Your task to perform on an android device: uninstall "LinkedIn" Image 0: 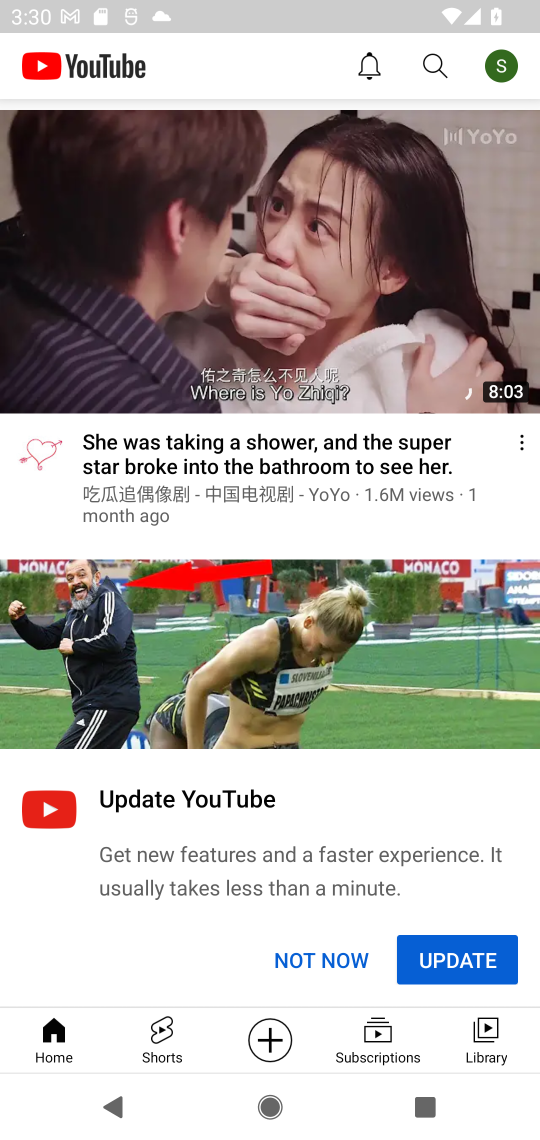
Step 0: press home button
Your task to perform on an android device: uninstall "LinkedIn" Image 1: 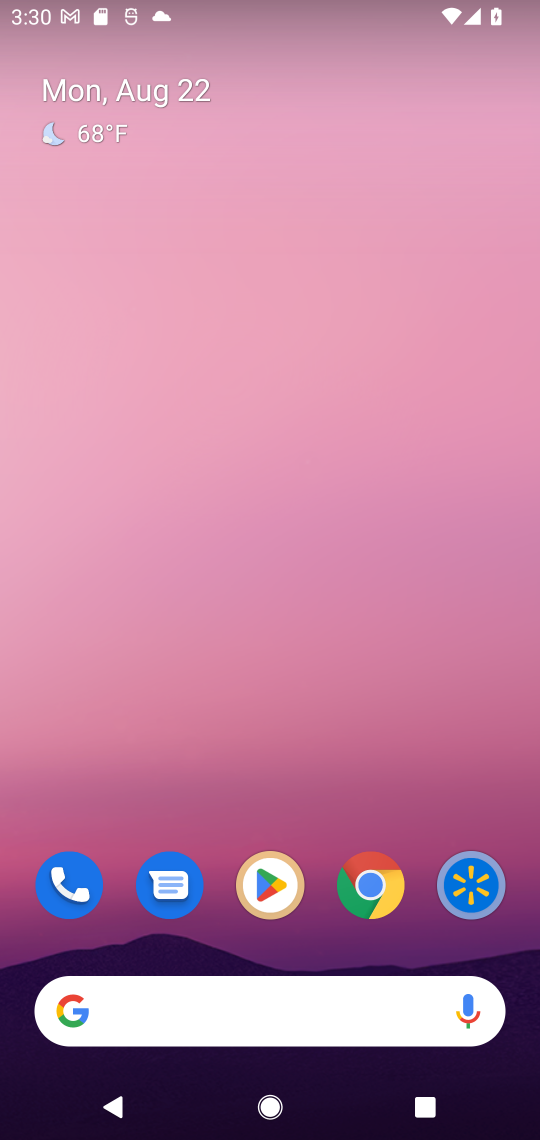
Step 1: press home button
Your task to perform on an android device: uninstall "LinkedIn" Image 2: 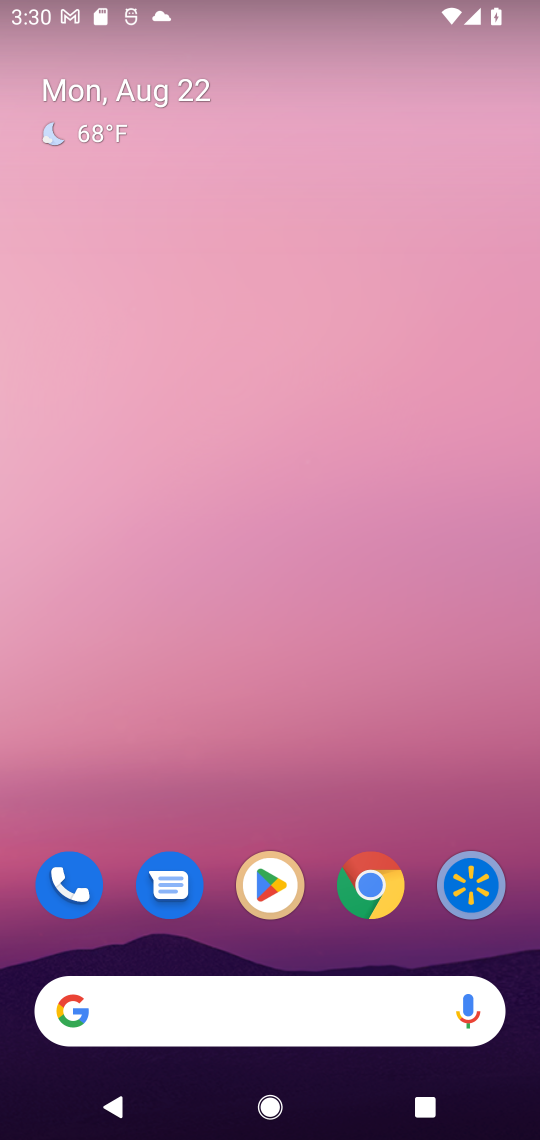
Step 2: click (276, 874)
Your task to perform on an android device: uninstall "LinkedIn" Image 3: 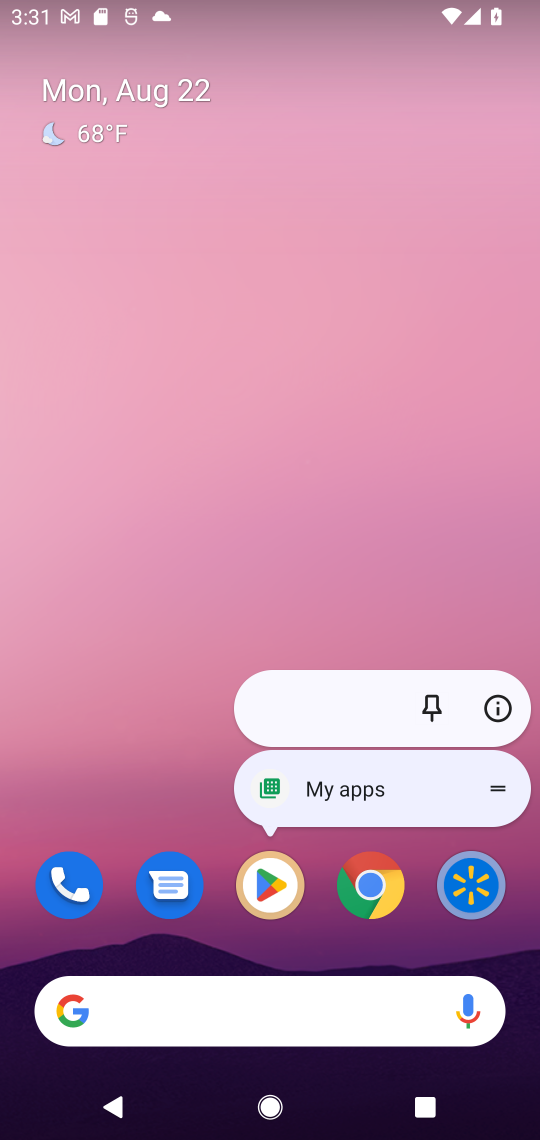
Step 3: click (280, 892)
Your task to perform on an android device: uninstall "LinkedIn" Image 4: 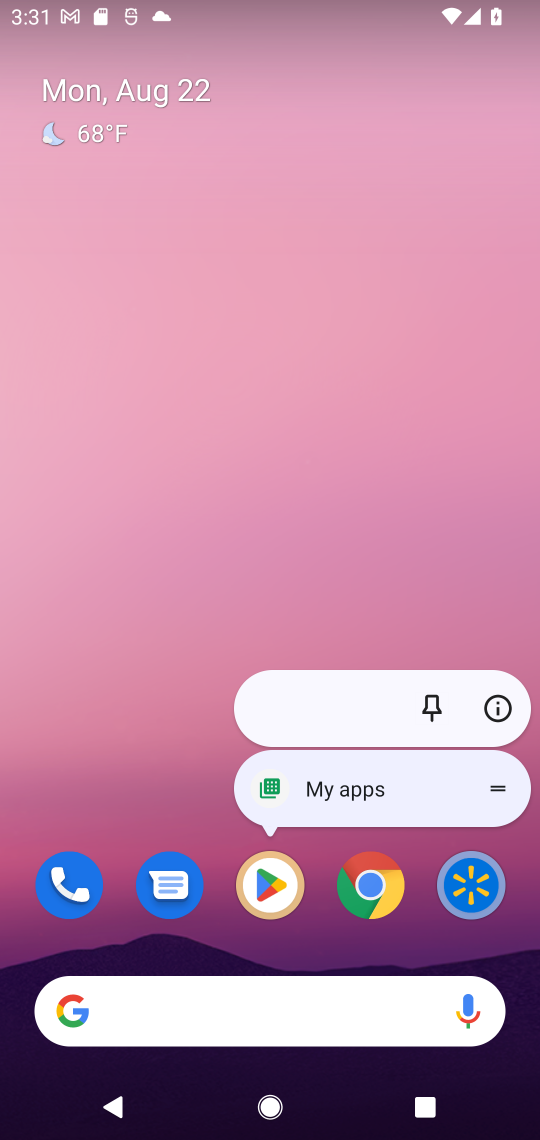
Step 4: click (261, 887)
Your task to perform on an android device: uninstall "LinkedIn" Image 5: 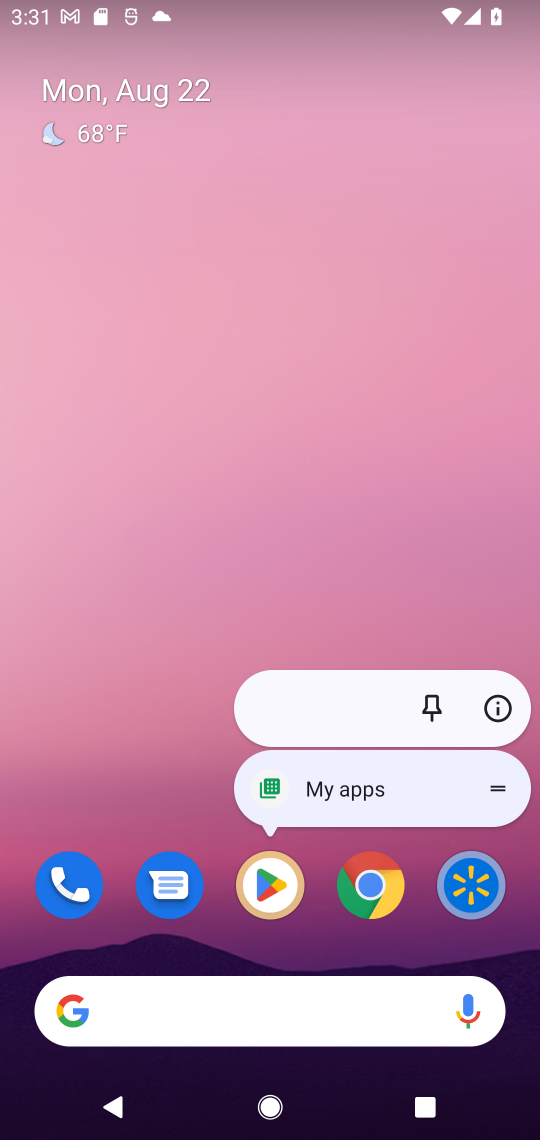
Step 5: click (261, 887)
Your task to perform on an android device: uninstall "LinkedIn" Image 6: 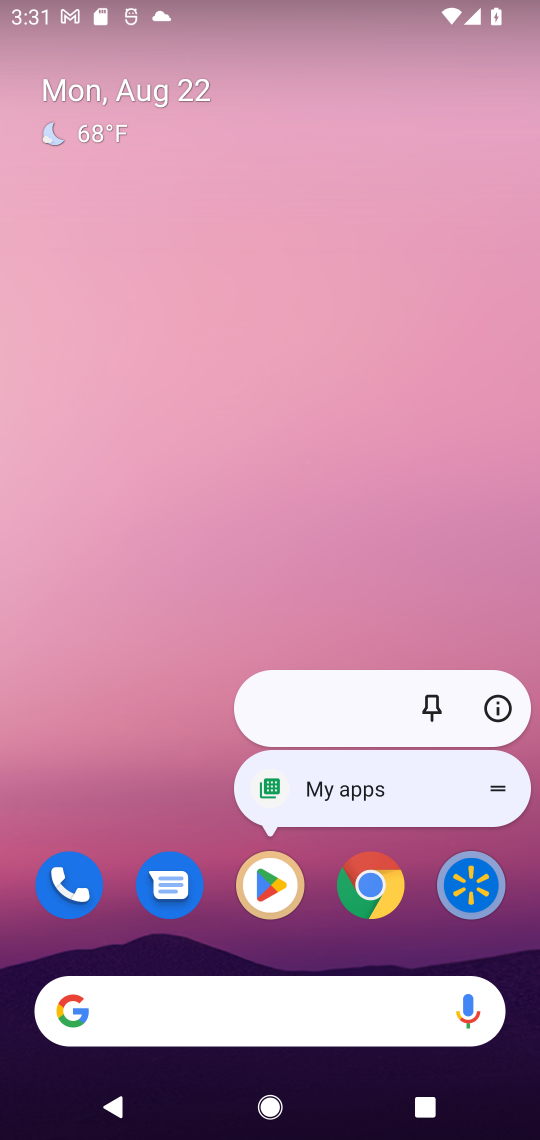
Step 6: click (202, 735)
Your task to perform on an android device: uninstall "LinkedIn" Image 7: 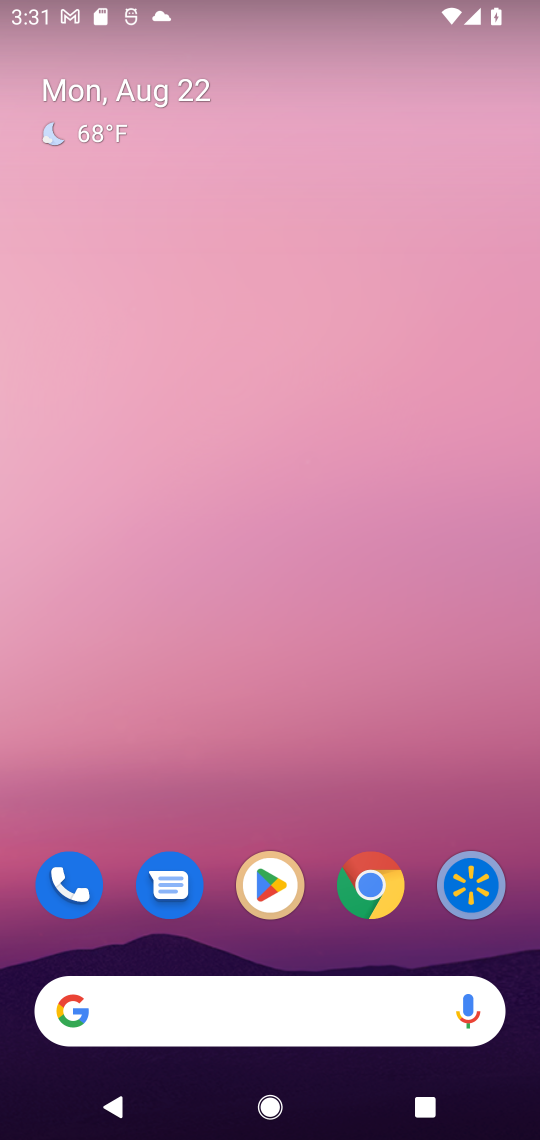
Step 7: drag from (158, 777) to (63, 24)
Your task to perform on an android device: uninstall "LinkedIn" Image 8: 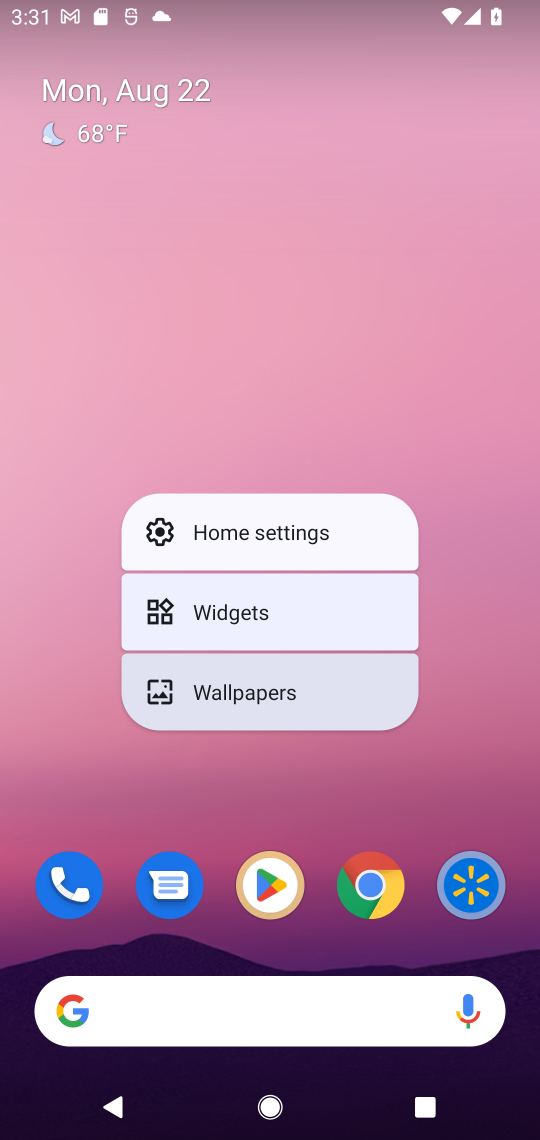
Step 8: drag from (452, 787) to (460, 0)
Your task to perform on an android device: uninstall "LinkedIn" Image 9: 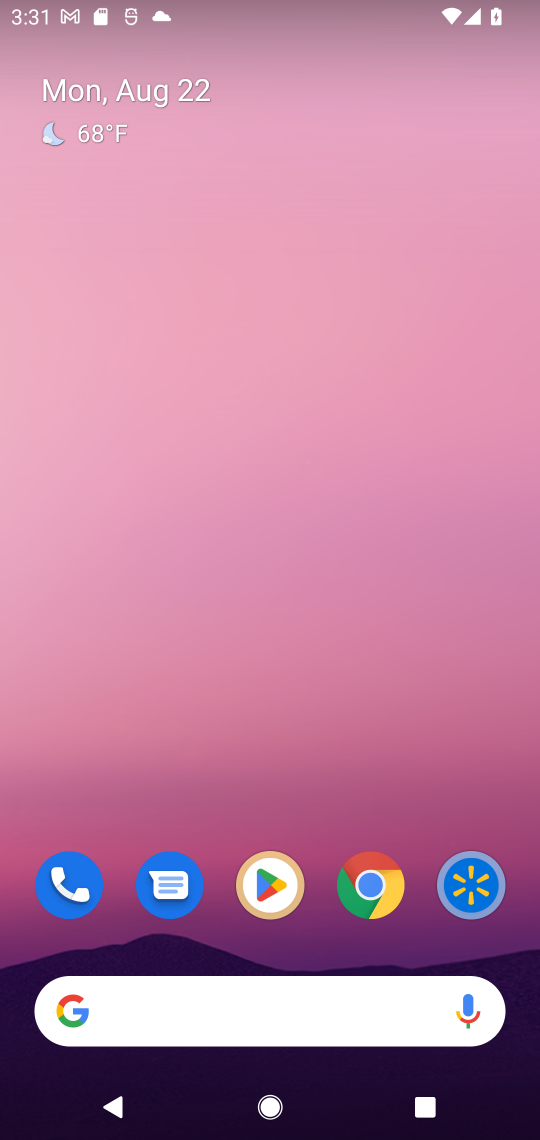
Step 9: drag from (337, 737) to (384, 0)
Your task to perform on an android device: uninstall "LinkedIn" Image 10: 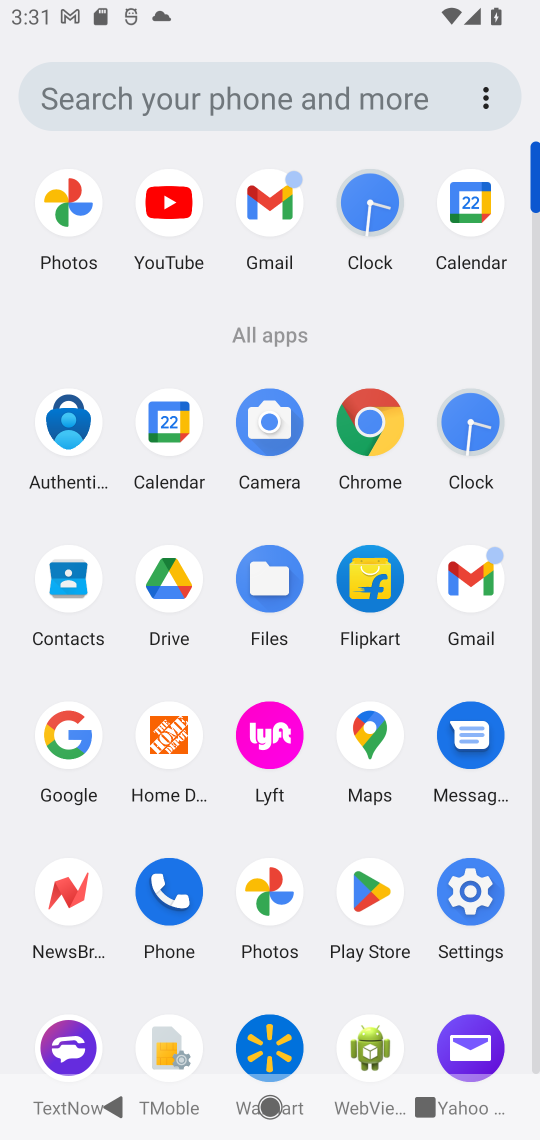
Step 10: click (365, 883)
Your task to perform on an android device: uninstall "LinkedIn" Image 11: 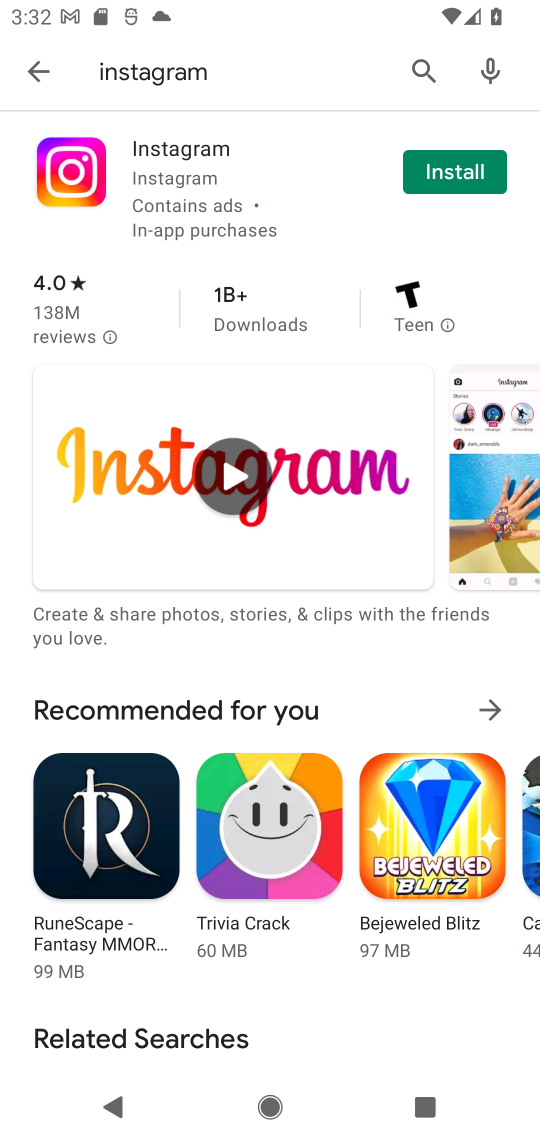
Step 11: click (410, 80)
Your task to perform on an android device: uninstall "LinkedIn" Image 12: 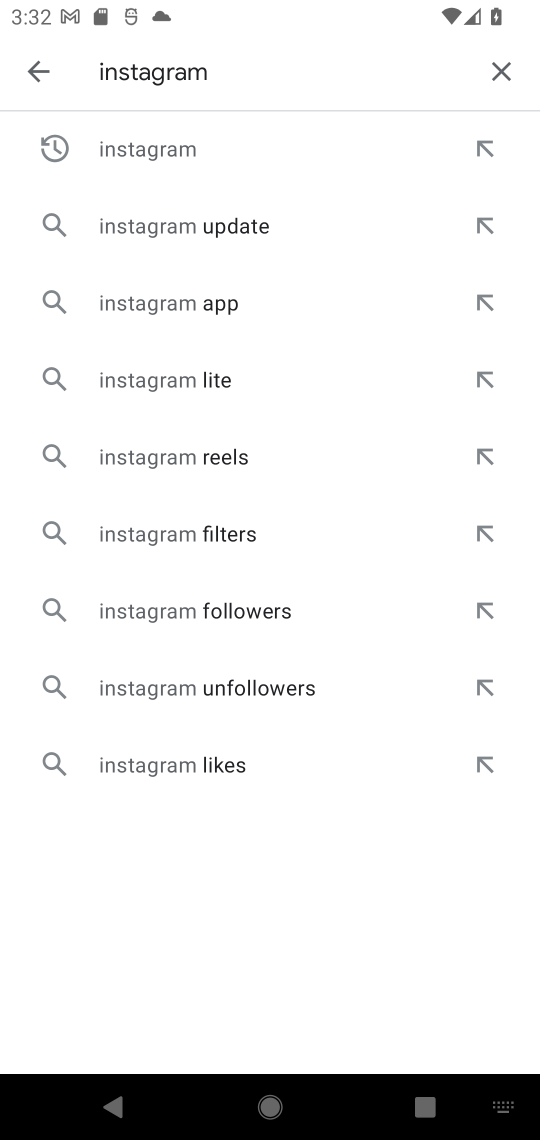
Step 12: click (504, 77)
Your task to perform on an android device: uninstall "LinkedIn" Image 13: 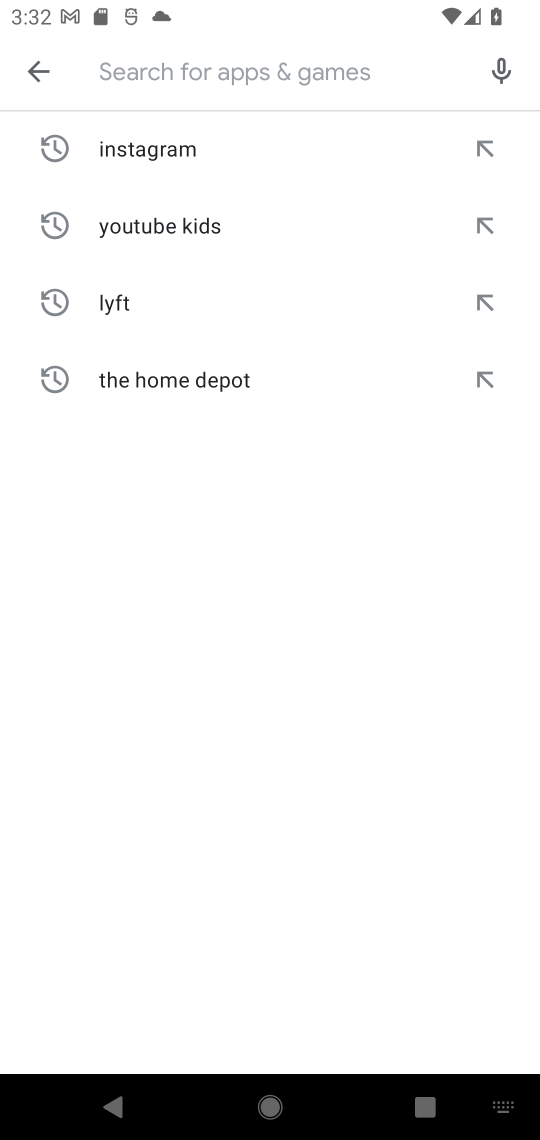
Step 13: type "LinkedIn"
Your task to perform on an android device: uninstall "LinkedIn" Image 14: 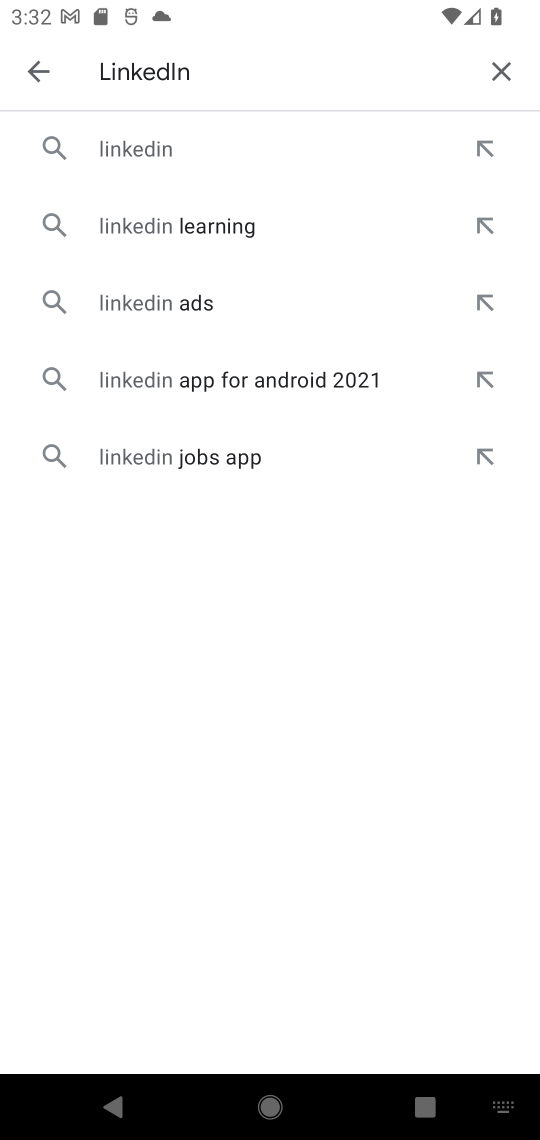
Step 14: click (166, 150)
Your task to perform on an android device: uninstall "LinkedIn" Image 15: 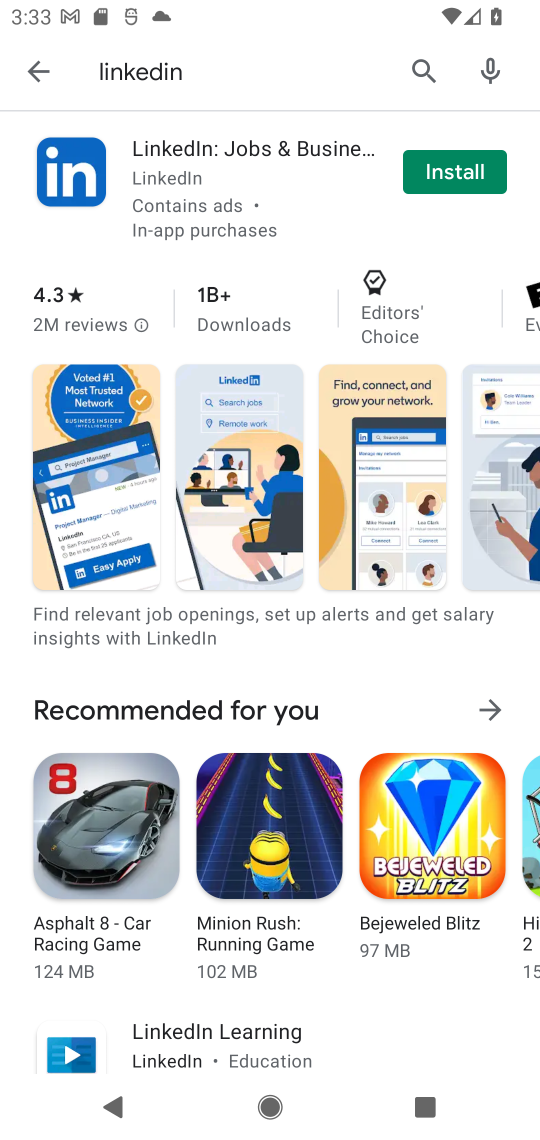
Step 15: task complete